Your task to perform on an android device: Open Google Maps Image 0: 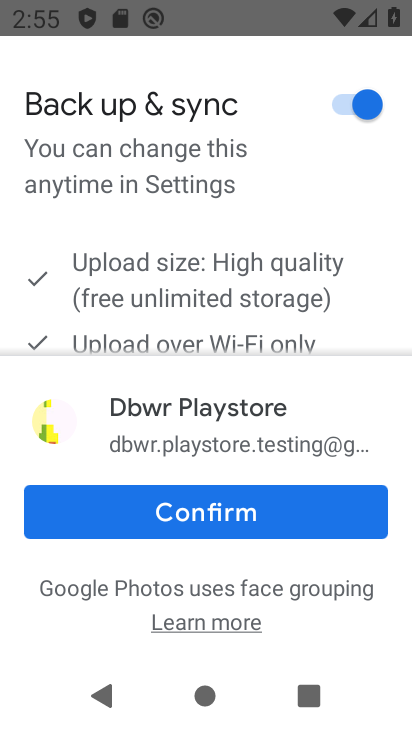
Step 0: press home button
Your task to perform on an android device: Open Google Maps Image 1: 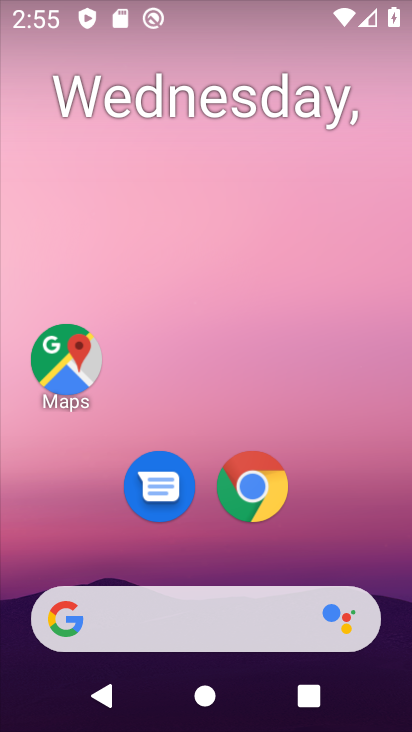
Step 1: click (77, 351)
Your task to perform on an android device: Open Google Maps Image 2: 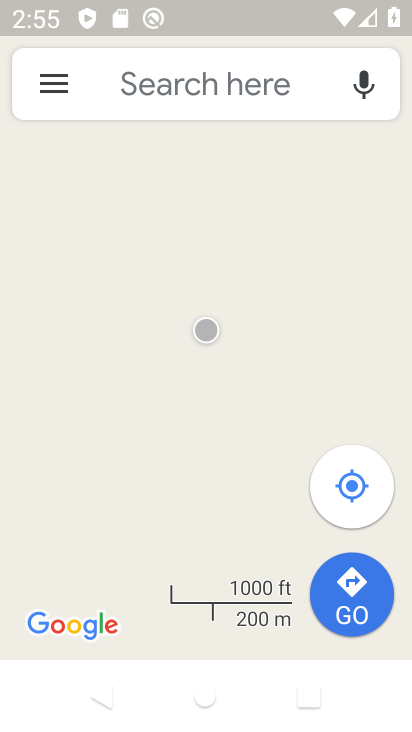
Step 2: task complete